Your task to perform on an android device: toggle notification dots Image 0: 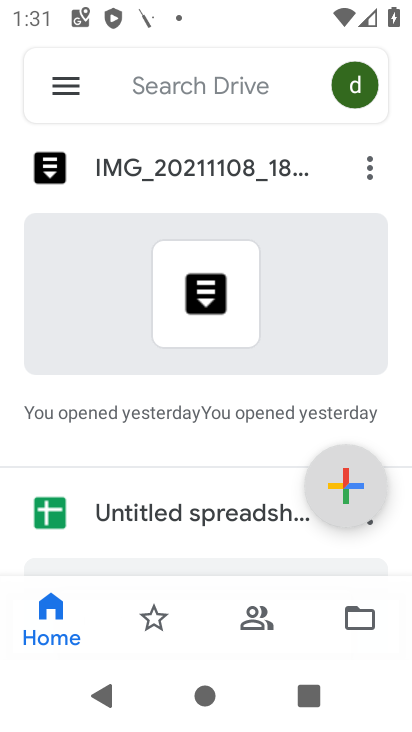
Step 0: press home button
Your task to perform on an android device: toggle notification dots Image 1: 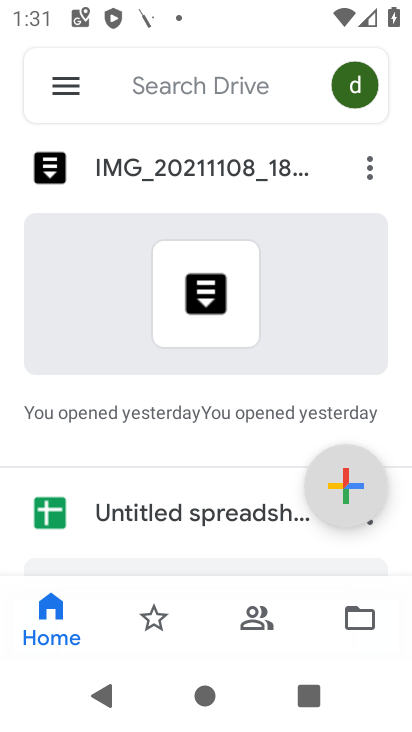
Step 1: press home button
Your task to perform on an android device: toggle notification dots Image 2: 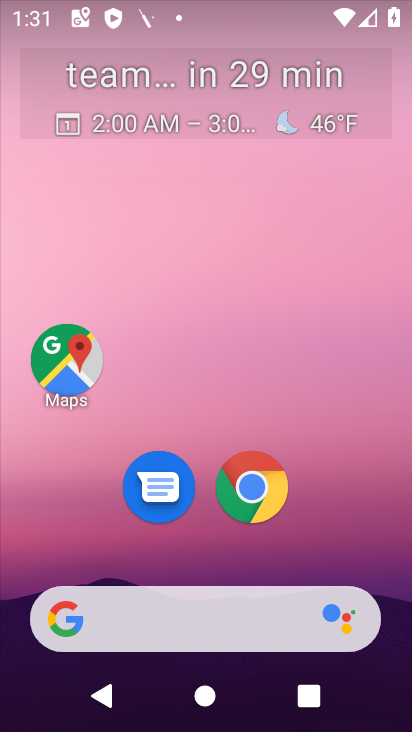
Step 2: drag from (345, 432) to (314, 57)
Your task to perform on an android device: toggle notification dots Image 3: 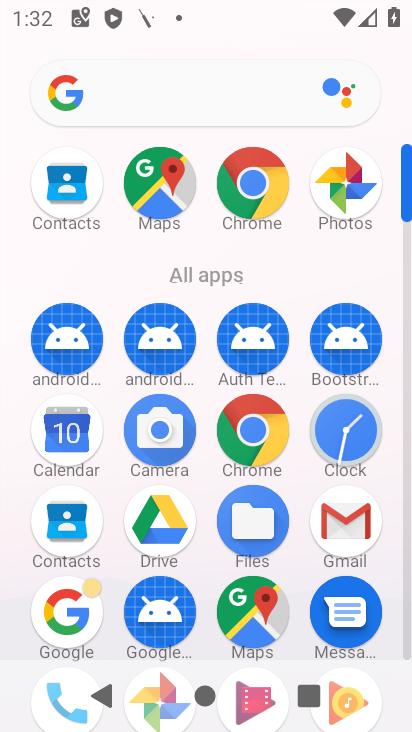
Step 3: drag from (307, 549) to (320, 234)
Your task to perform on an android device: toggle notification dots Image 4: 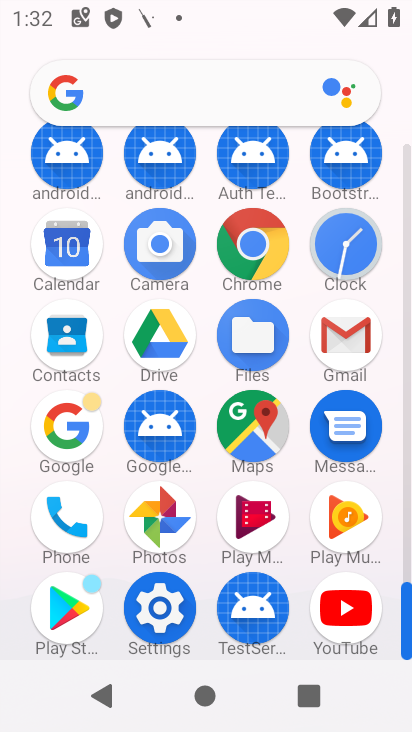
Step 4: click (153, 602)
Your task to perform on an android device: toggle notification dots Image 5: 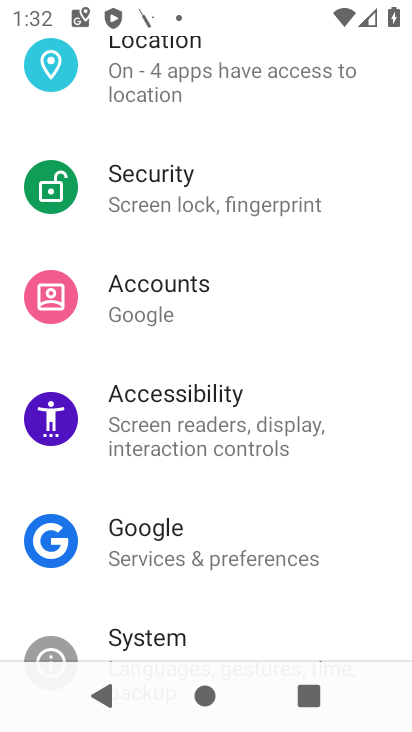
Step 5: drag from (234, 611) to (227, 684)
Your task to perform on an android device: toggle notification dots Image 6: 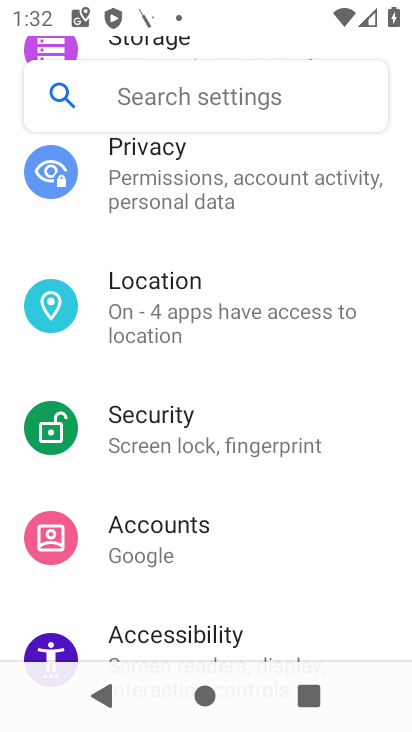
Step 6: drag from (242, 371) to (249, 581)
Your task to perform on an android device: toggle notification dots Image 7: 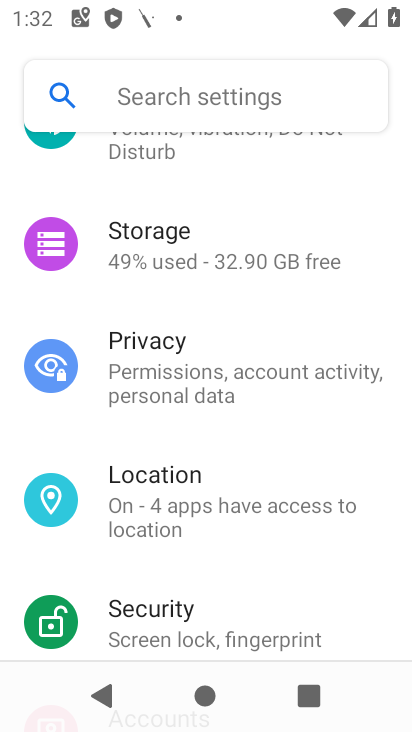
Step 7: drag from (280, 425) to (250, 698)
Your task to perform on an android device: toggle notification dots Image 8: 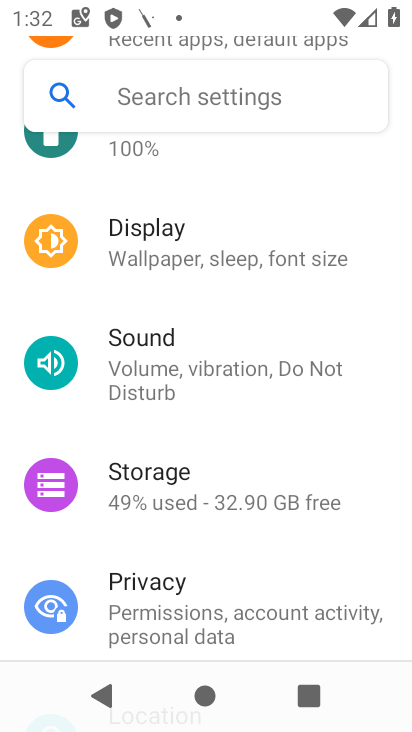
Step 8: drag from (295, 331) to (244, 627)
Your task to perform on an android device: toggle notification dots Image 9: 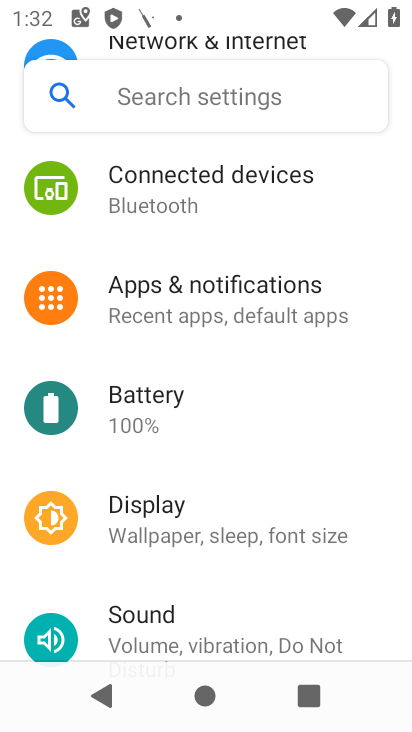
Step 9: click (267, 304)
Your task to perform on an android device: toggle notification dots Image 10: 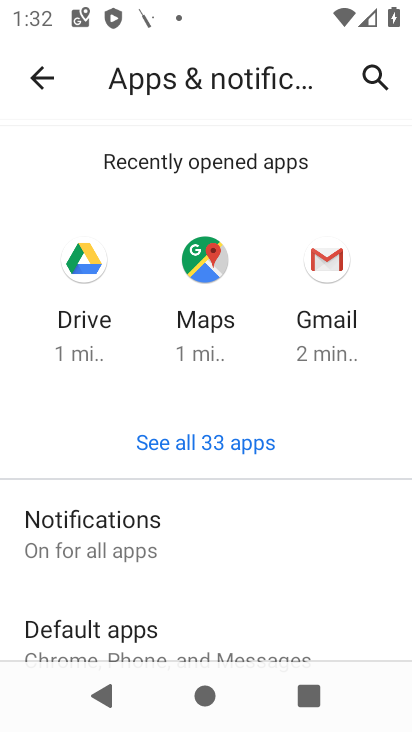
Step 10: click (135, 530)
Your task to perform on an android device: toggle notification dots Image 11: 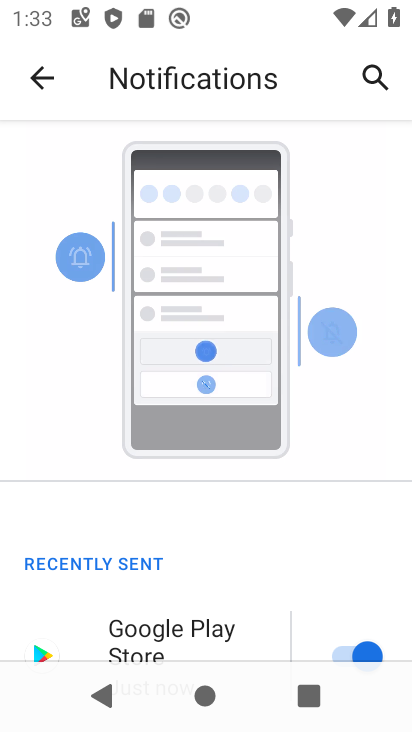
Step 11: drag from (237, 580) to (254, 215)
Your task to perform on an android device: toggle notification dots Image 12: 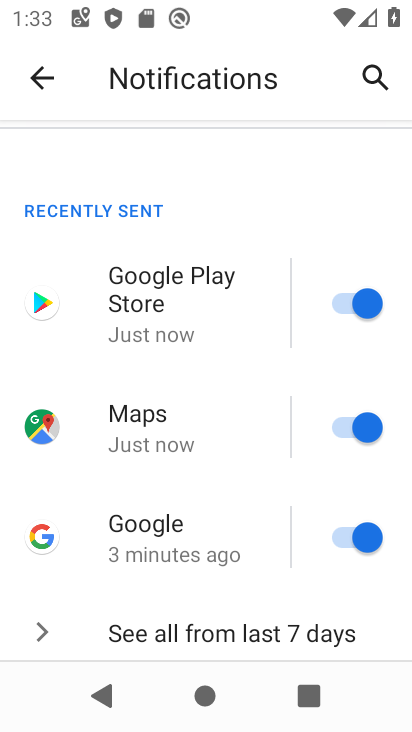
Step 12: drag from (188, 634) to (185, 338)
Your task to perform on an android device: toggle notification dots Image 13: 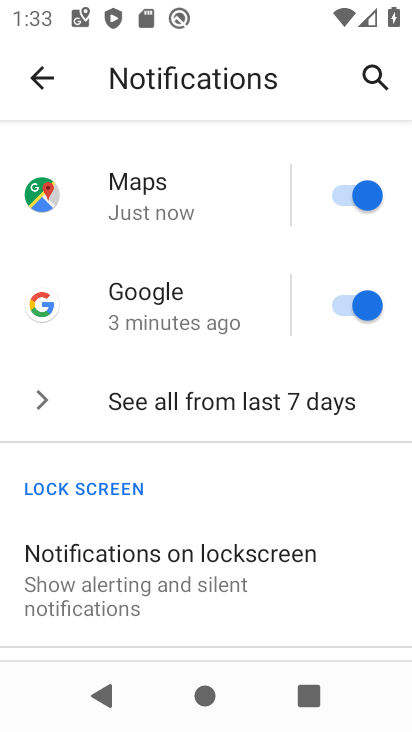
Step 13: drag from (188, 535) to (220, 203)
Your task to perform on an android device: toggle notification dots Image 14: 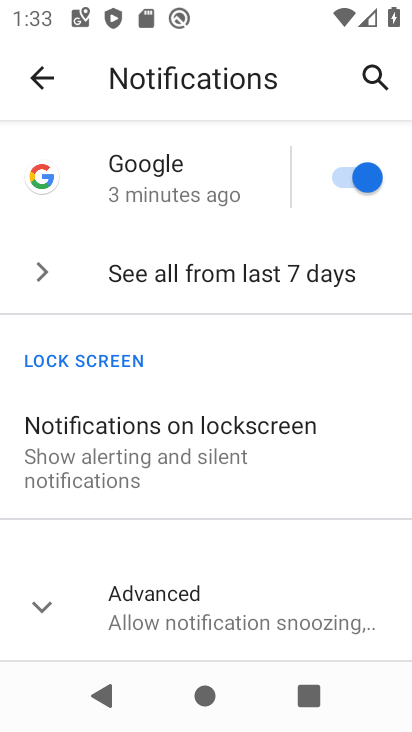
Step 14: click (149, 583)
Your task to perform on an android device: toggle notification dots Image 15: 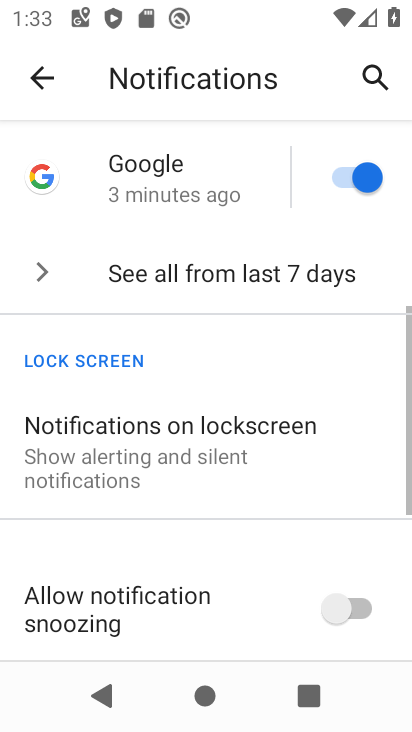
Step 15: drag from (166, 543) to (231, 198)
Your task to perform on an android device: toggle notification dots Image 16: 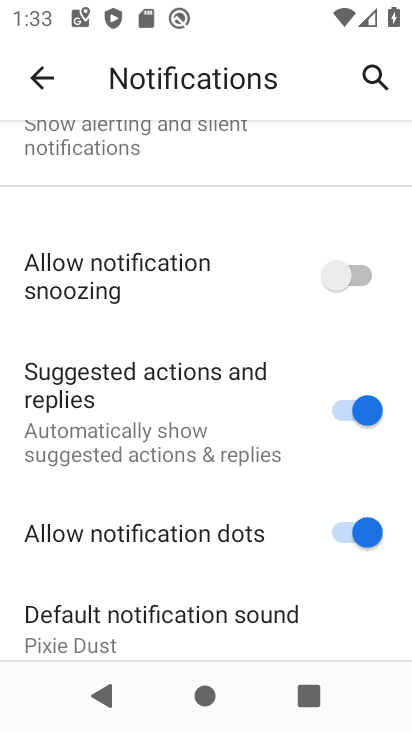
Step 16: drag from (195, 504) to (276, 155)
Your task to perform on an android device: toggle notification dots Image 17: 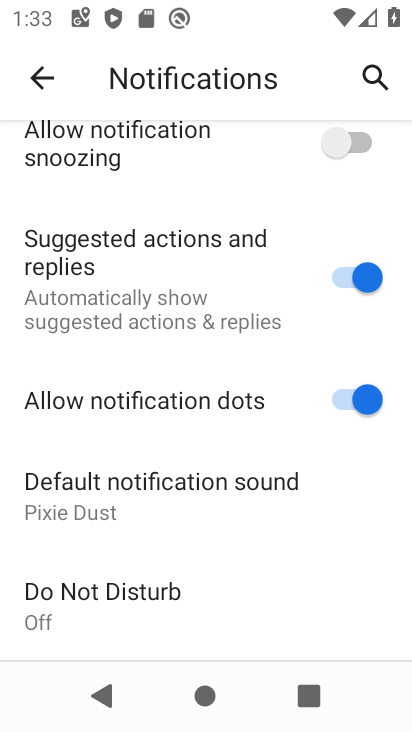
Step 17: click (352, 396)
Your task to perform on an android device: toggle notification dots Image 18: 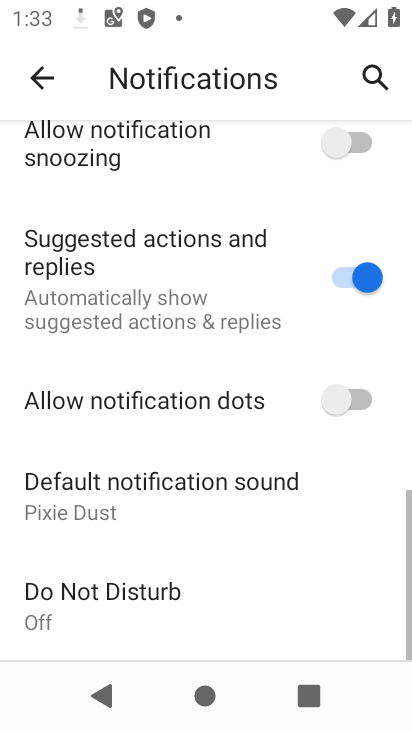
Step 18: task complete